Your task to perform on an android device: Show me the alarms in the clock app Image 0: 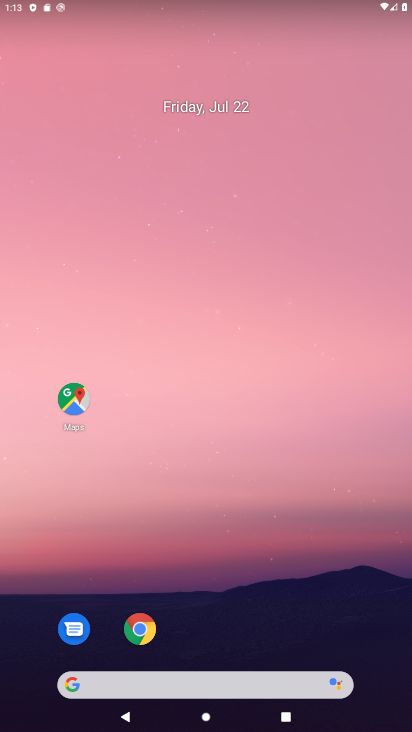
Step 0: drag from (227, 624) to (252, 94)
Your task to perform on an android device: Show me the alarms in the clock app Image 1: 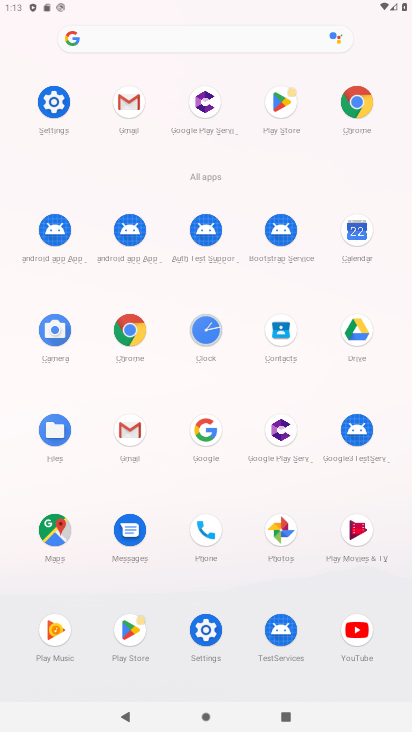
Step 1: click (198, 333)
Your task to perform on an android device: Show me the alarms in the clock app Image 2: 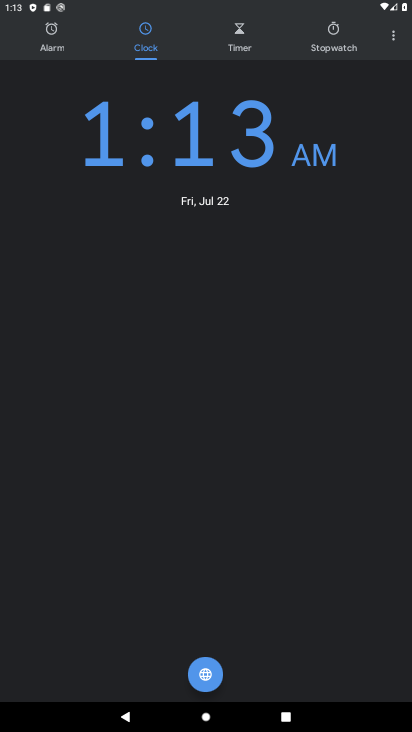
Step 2: click (51, 26)
Your task to perform on an android device: Show me the alarms in the clock app Image 3: 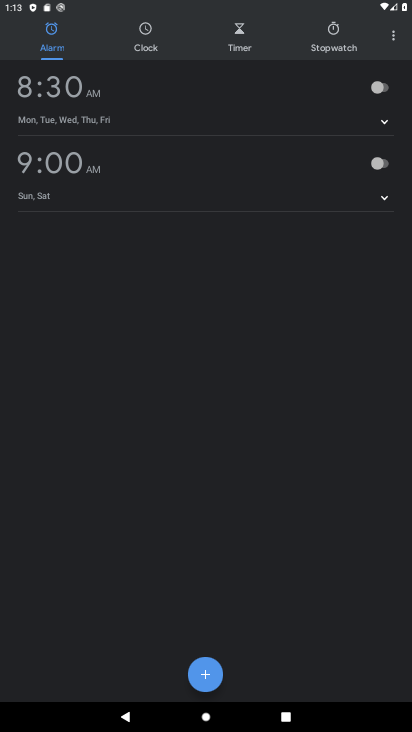
Step 3: task complete